Your task to perform on an android device: What's the weather? Image 0: 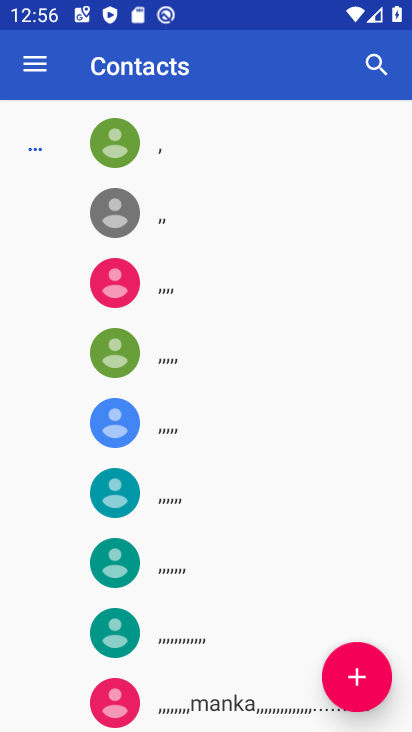
Step 0: press home button
Your task to perform on an android device: What's the weather? Image 1: 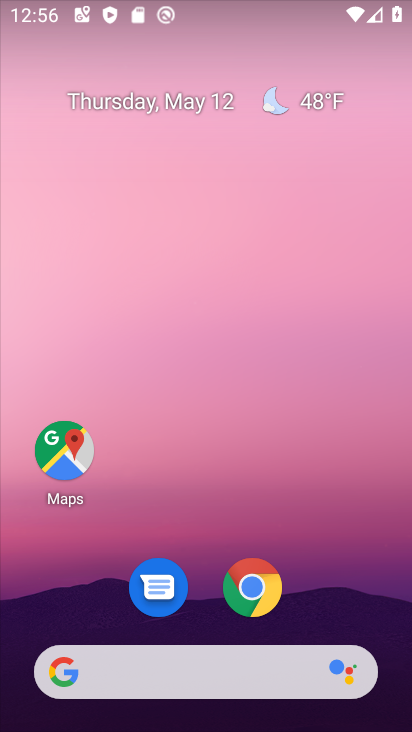
Step 1: drag from (269, 530) to (334, 225)
Your task to perform on an android device: What's the weather? Image 2: 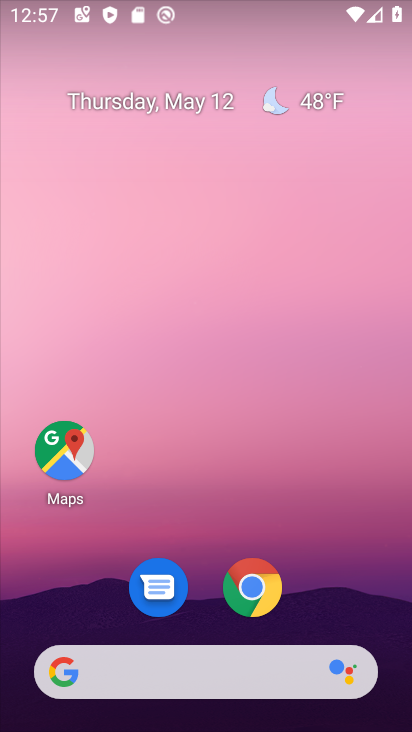
Step 2: drag from (240, 619) to (245, 311)
Your task to perform on an android device: What's the weather? Image 3: 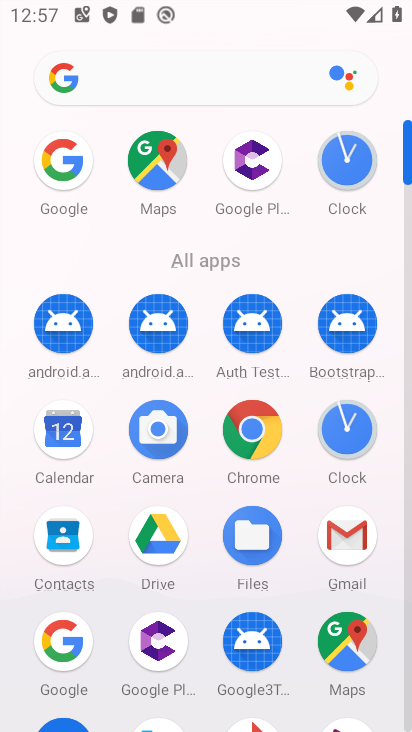
Step 3: drag from (120, 567) to (137, 447)
Your task to perform on an android device: What's the weather? Image 4: 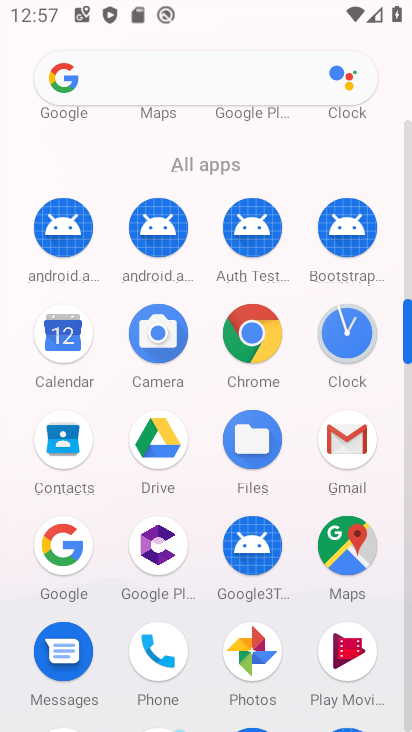
Step 4: click (64, 546)
Your task to perform on an android device: What's the weather? Image 5: 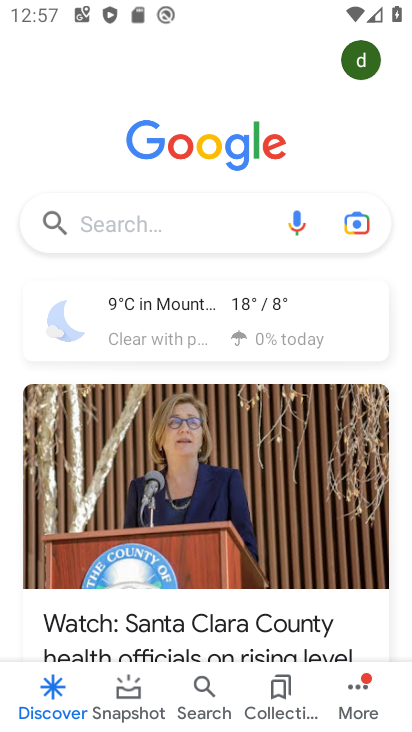
Step 5: click (193, 229)
Your task to perform on an android device: What's the weather? Image 6: 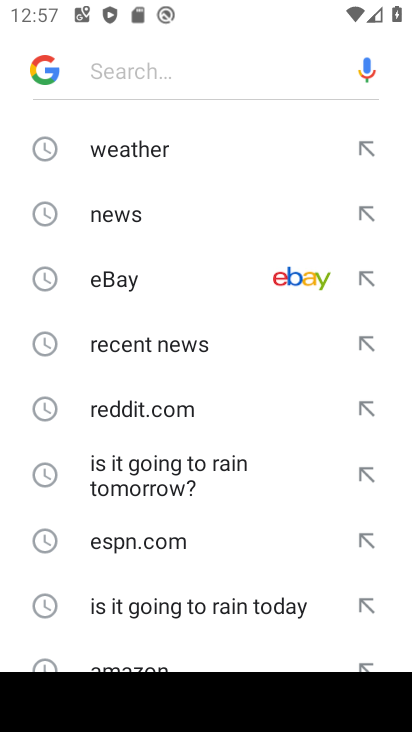
Step 6: click (187, 159)
Your task to perform on an android device: What's the weather? Image 7: 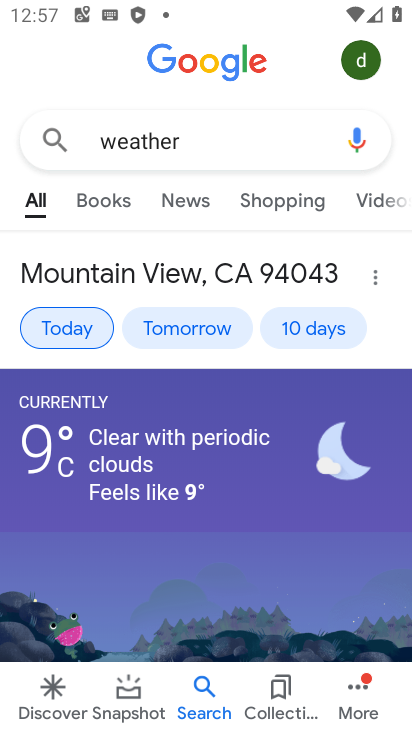
Step 7: task complete